Your task to perform on an android device: Open Amazon Image 0: 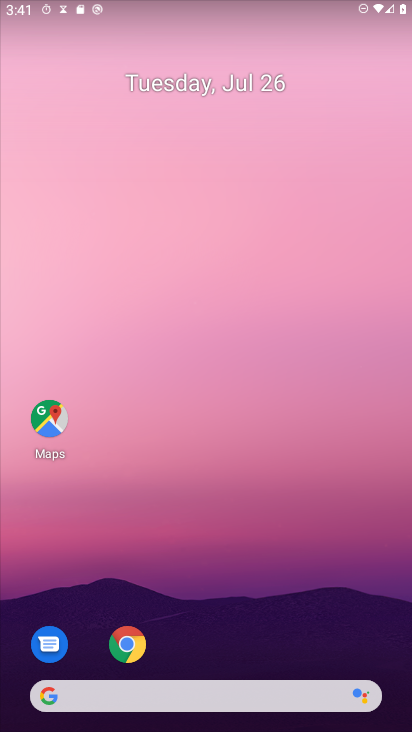
Step 0: press home button
Your task to perform on an android device: Open Amazon Image 1: 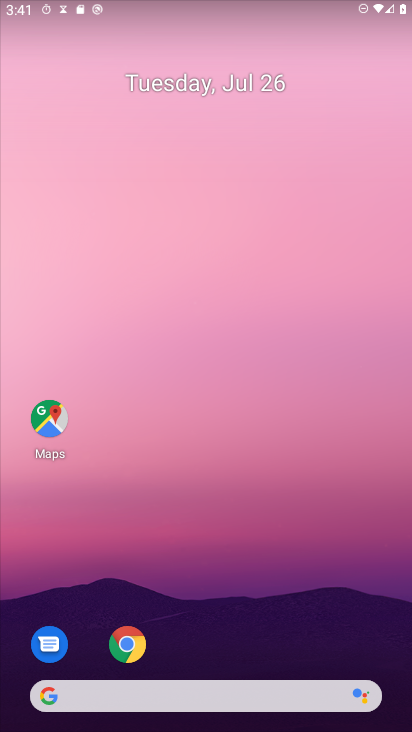
Step 1: click (46, 699)
Your task to perform on an android device: Open Amazon Image 2: 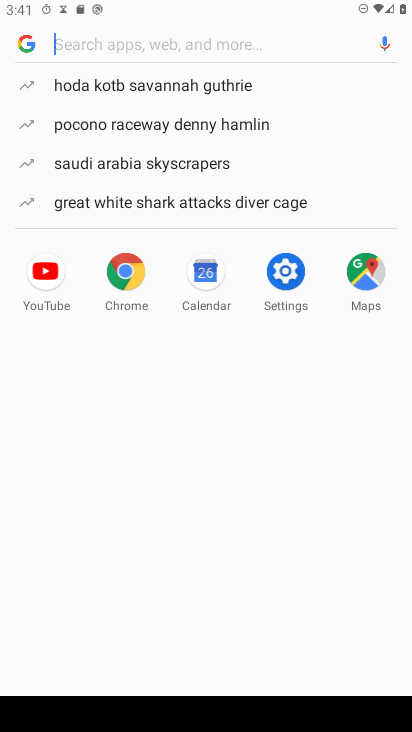
Step 2: type "Amazon"
Your task to perform on an android device: Open Amazon Image 3: 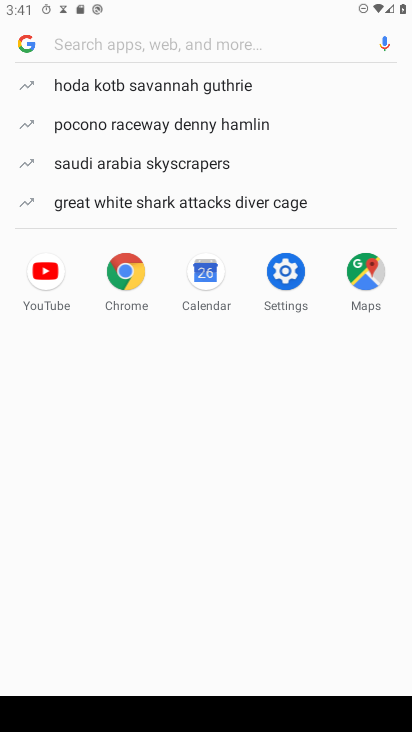
Step 3: click (75, 46)
Your task to perform on an android device: Open Amazon Image 4: 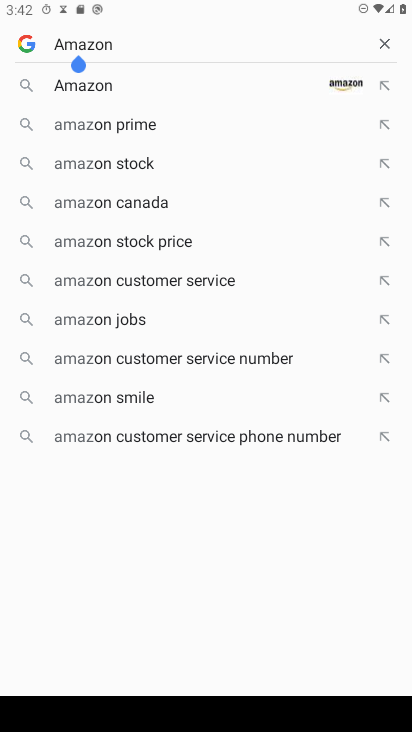
Step 4: click (339, 83)
Your task to perform on an android device: Open Amazon Image 5: 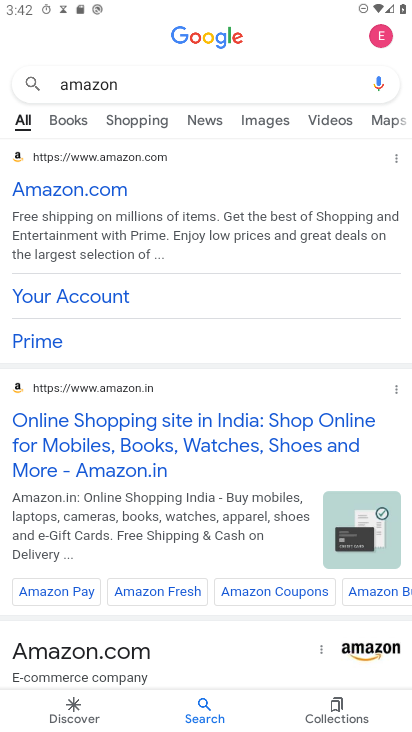
Step 5: click (45, 425)
Your task to perform on an android device: Open Amazon Image 6: 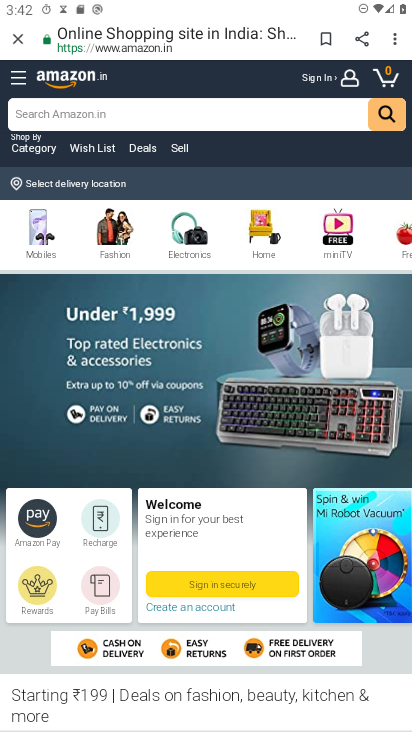
Step 6: task complete